Your task to perform on an android device: Search for hotels in Atlanta Image 0: 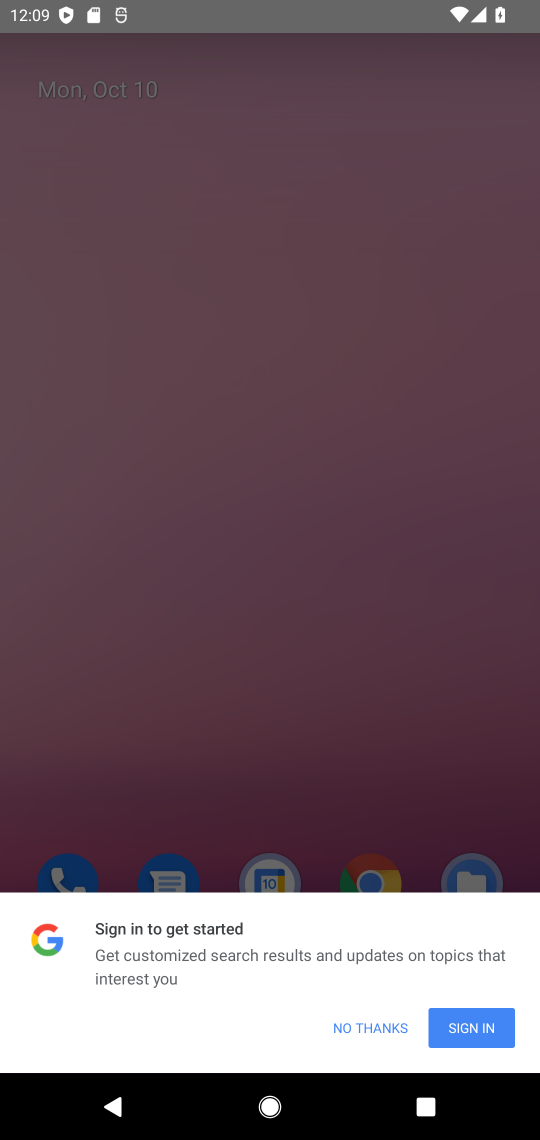
Step 0: press home button
Your task to perform on an android device: Search for hotels in Atlanta Image 1: 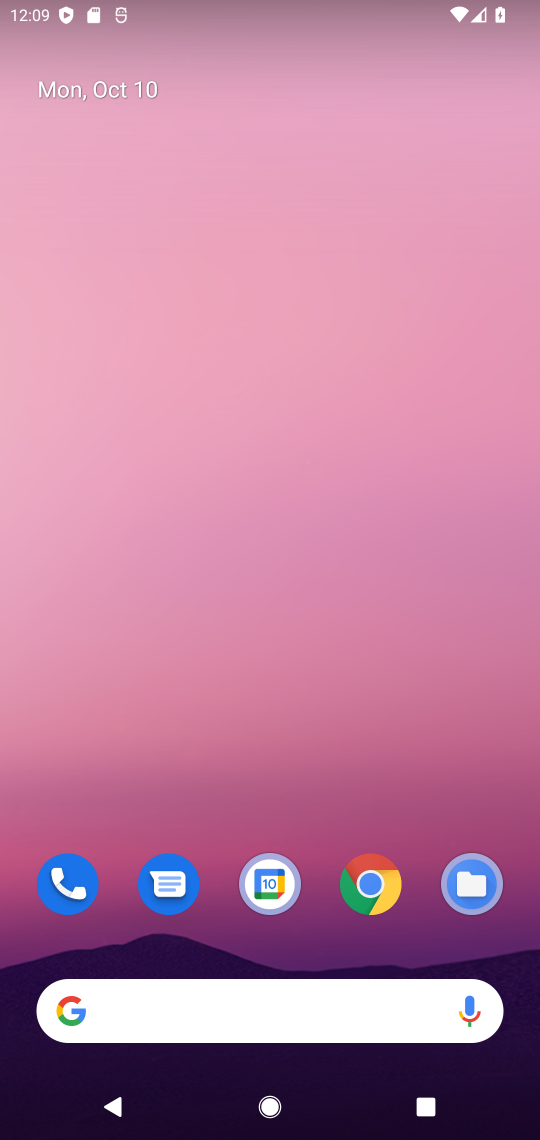
Step 1: click (355, 880)
Your task to perform on an android device: Search for hotels in Atlanta Image 2: 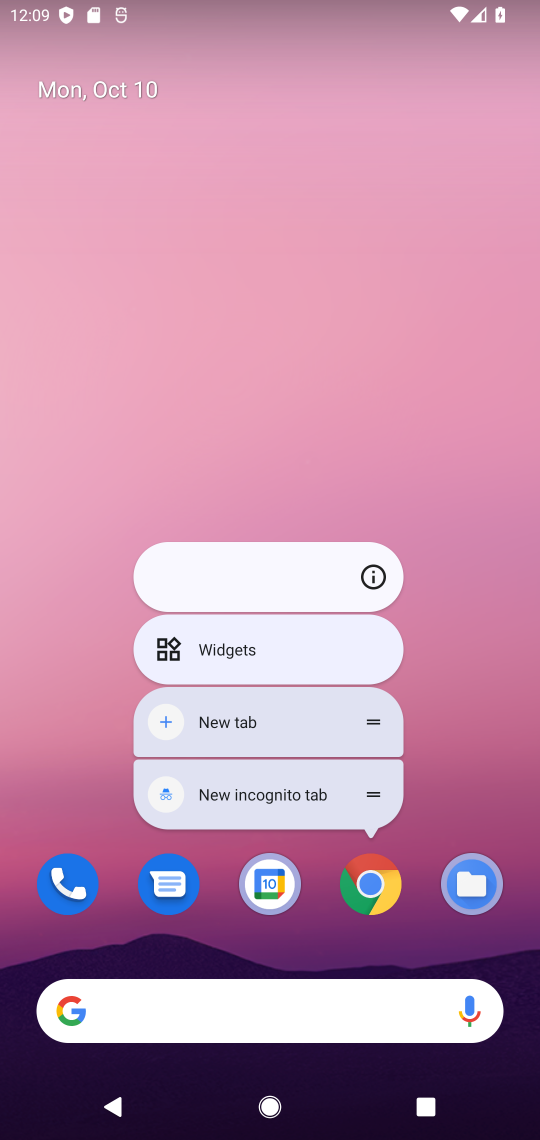
Step 2: click (362, 884)
Your task to perform on an android device: Search for hotels in Atlanta Image 3: 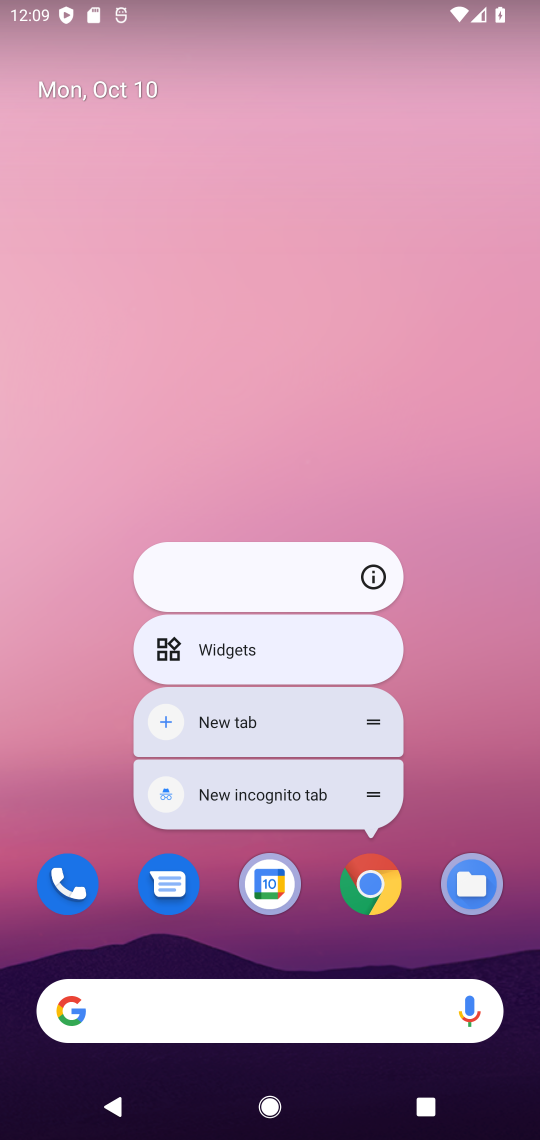
Step 3: click (382, 887)
Your task to perform on an android device: Search for hotels in Atlanta Image 4: 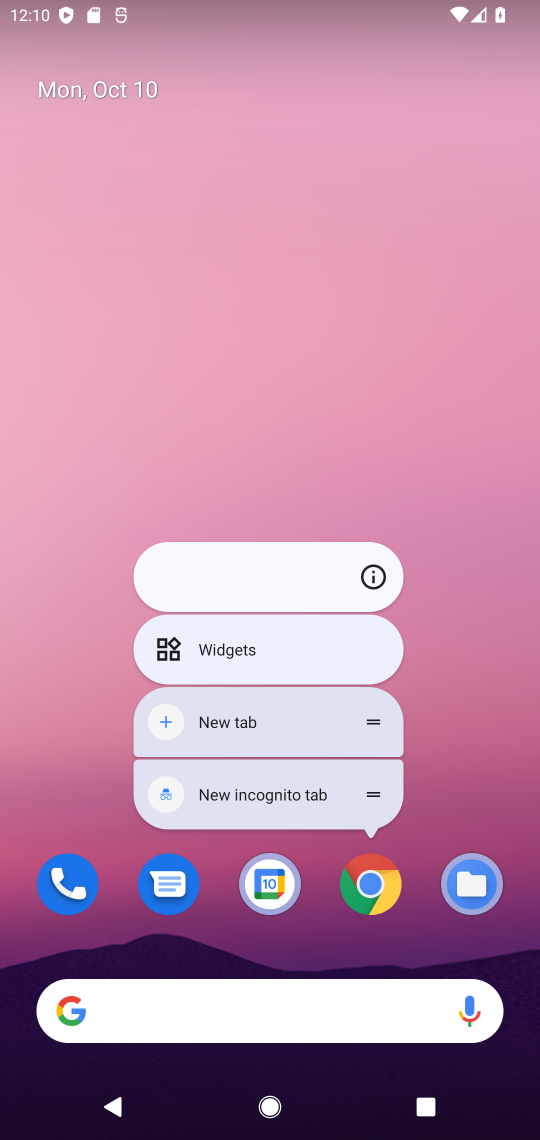
Step 4: click (380, 901)
Your task to perform on an android device: Search for hotels in Atlanta Image 5: 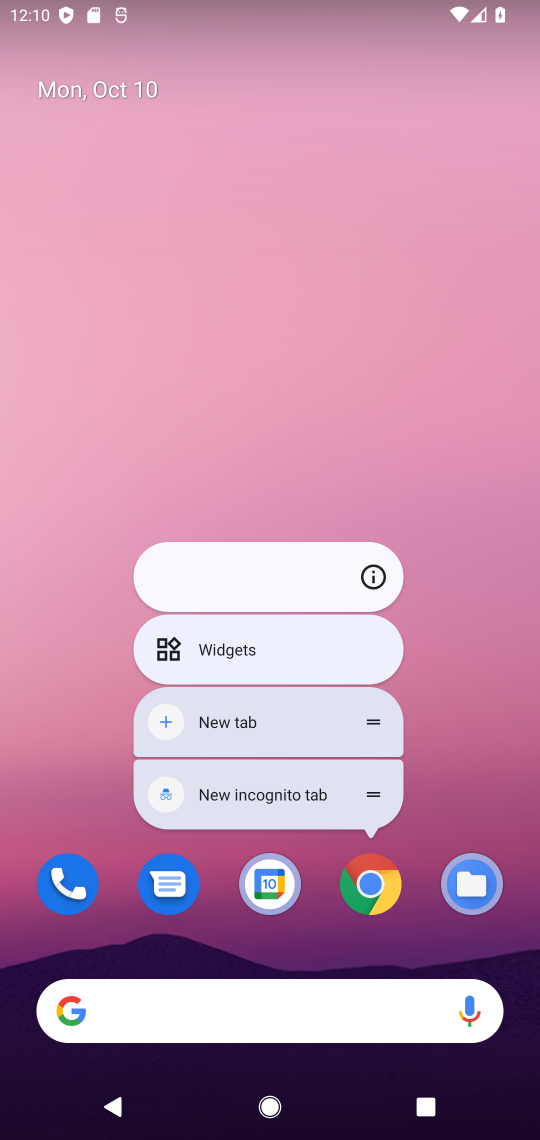
Step 5: click (376, 903)
Your task to perform on an android device: Search for hotels in Atlanta Image 6: 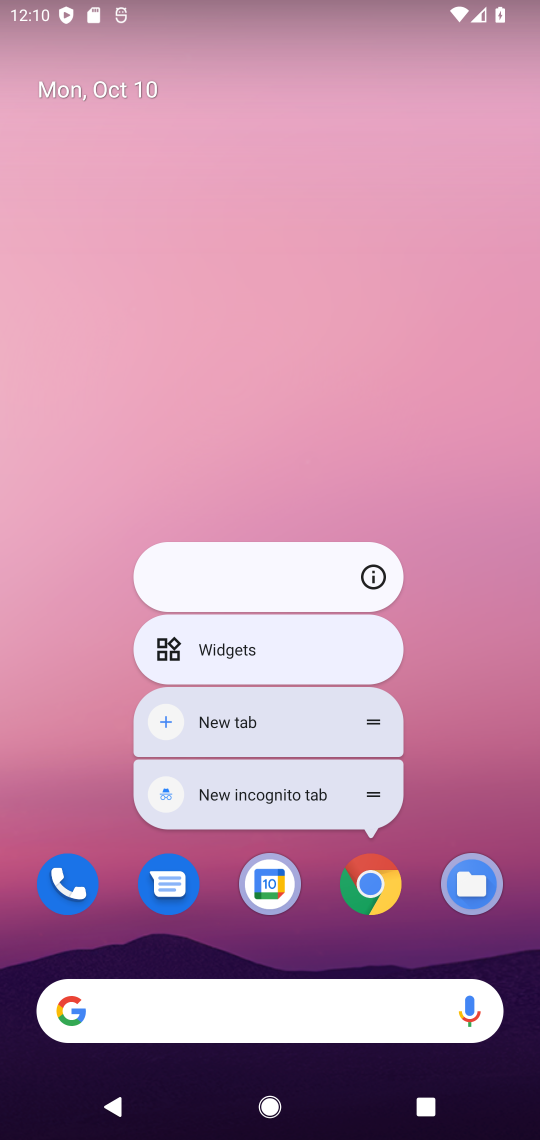
Step 6: click (362, 887)
Your task to perform on an android device: Search for hotels in Atlanta Image 7: 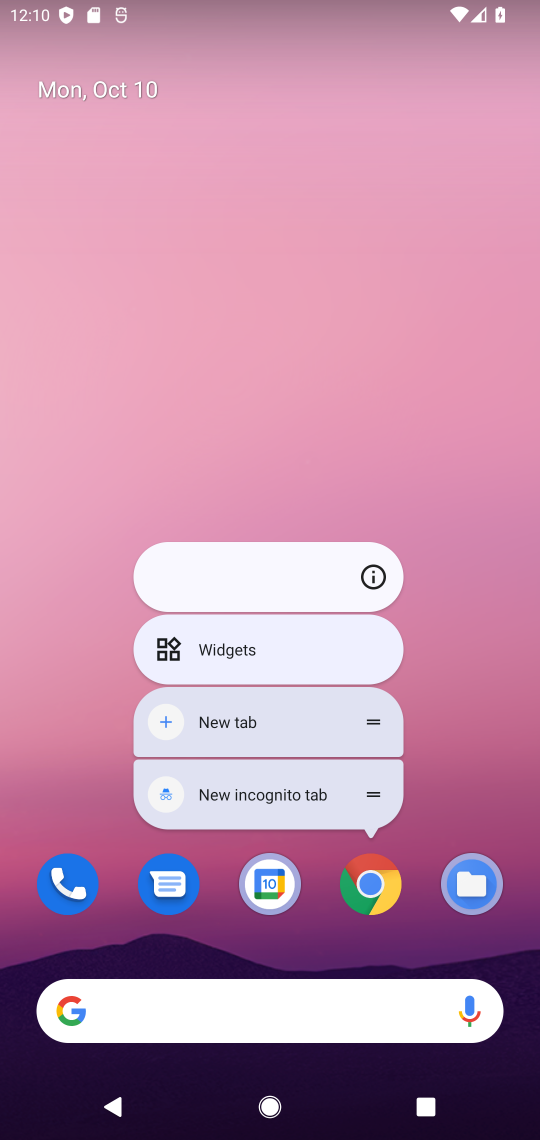
Step 7: click (362, 887)
Your task to perform on an android device: Search for hotels in Atlanta Image 8: 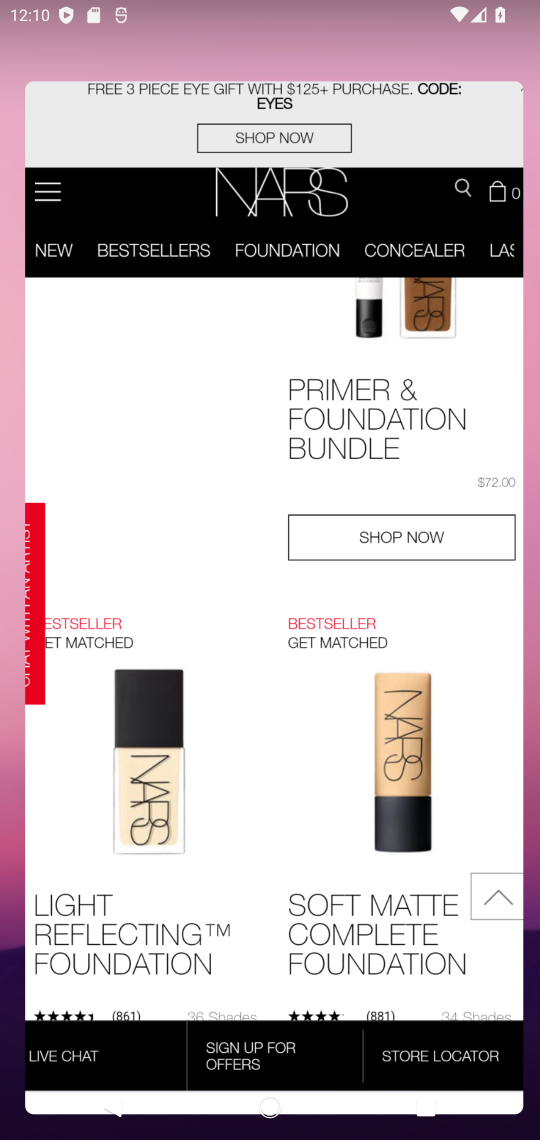
Step 8: click (350, 895)
Your task to perform on an android device: Search for hotels in Atlanta Image 9: 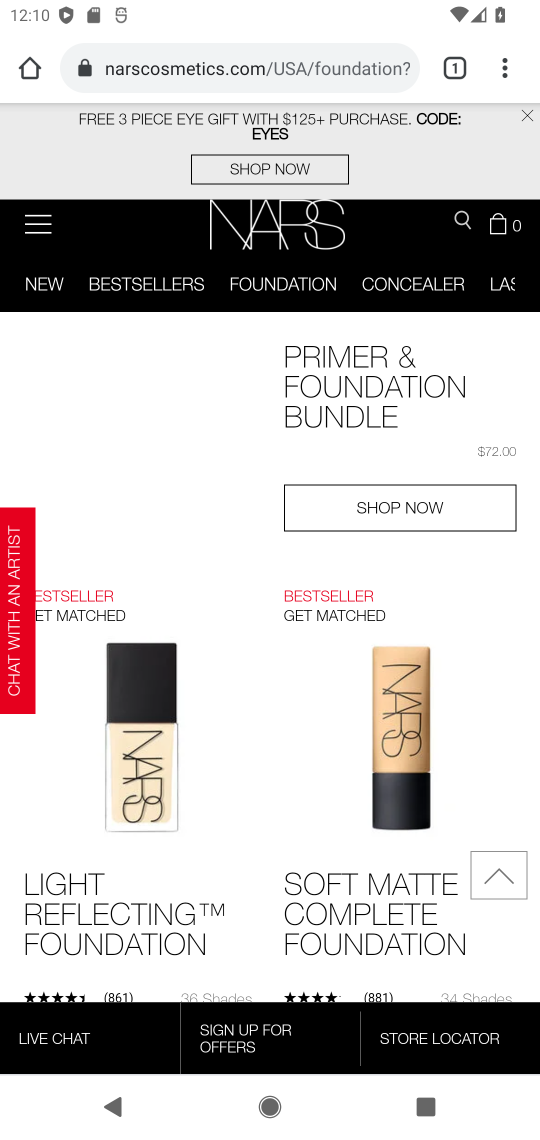
Step 9: click (249, 70)
Your task to perform on an android device: Search for hotels in Atlanta Image 10: 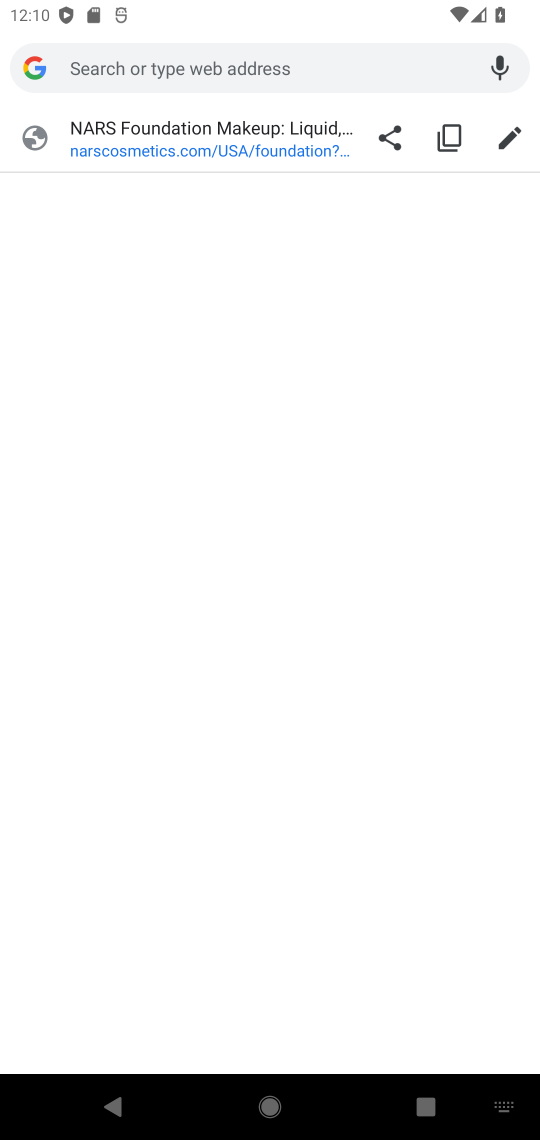
Step 10: type "hotels in Atlanta"
Your task to perform on an android device: Search for hotels in Atlanta Image 11: 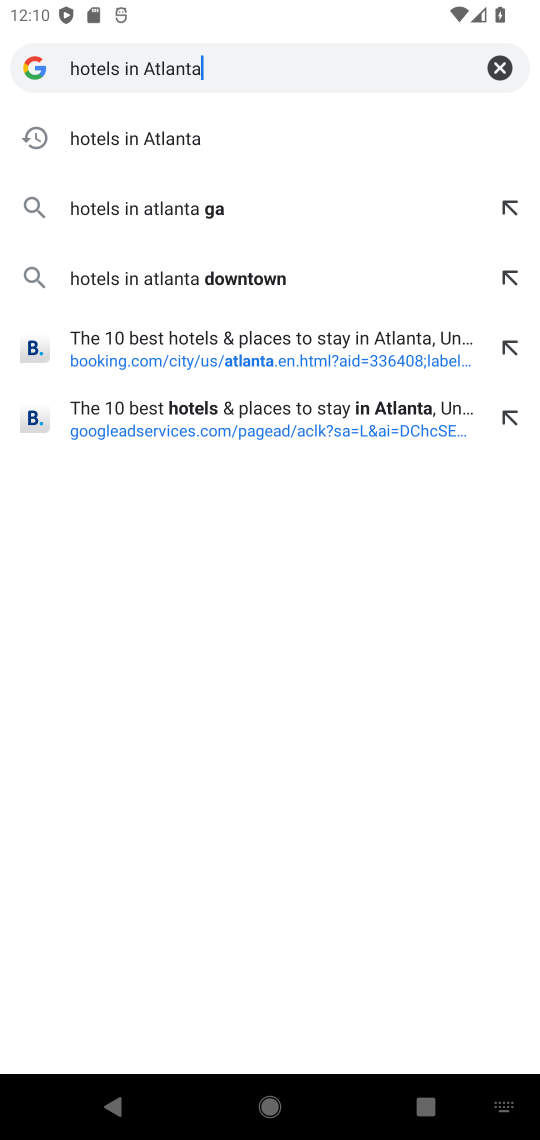
Step 11: press enter
Your task to perform on an android device: Search for hotels in Atlanta Image 12: 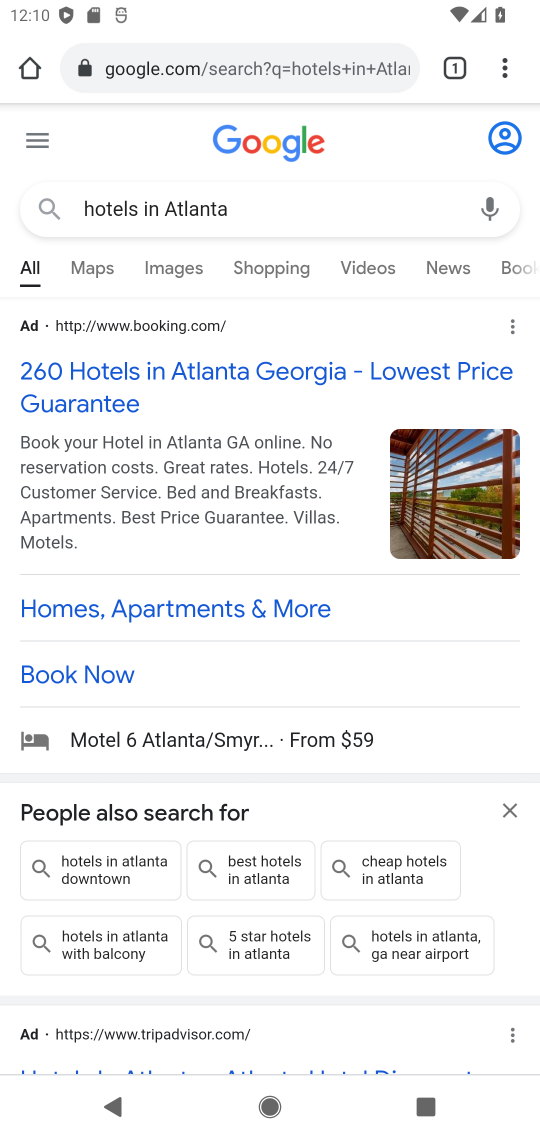
Step 12: click (73, 396)
Your task to perform on an android device: Search for hotels in Atlanta Image 13: 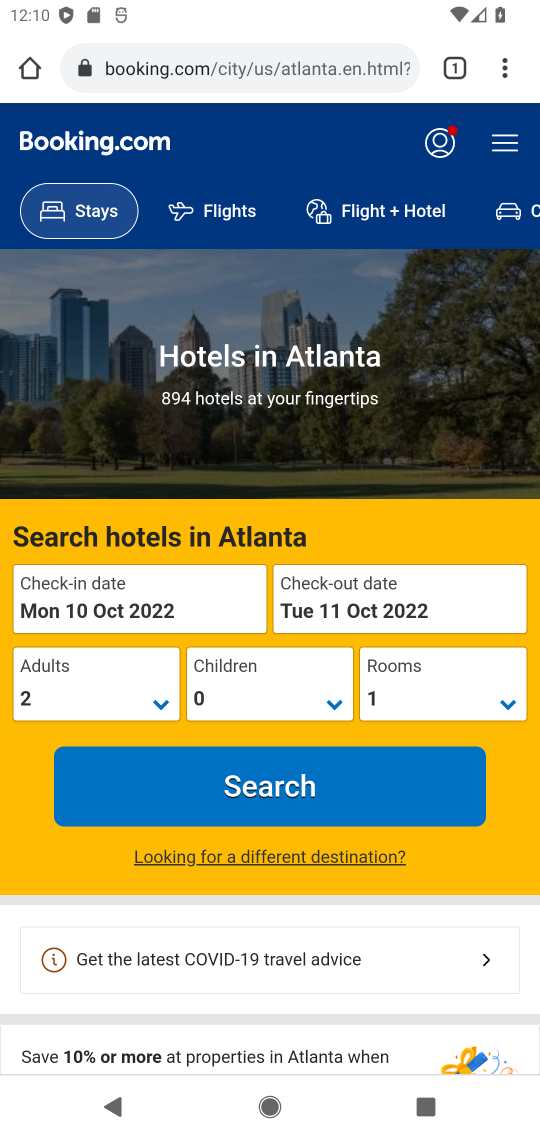
Step 13: task complete